Your task to perform on an android device: Go to CNN.com Image 0: 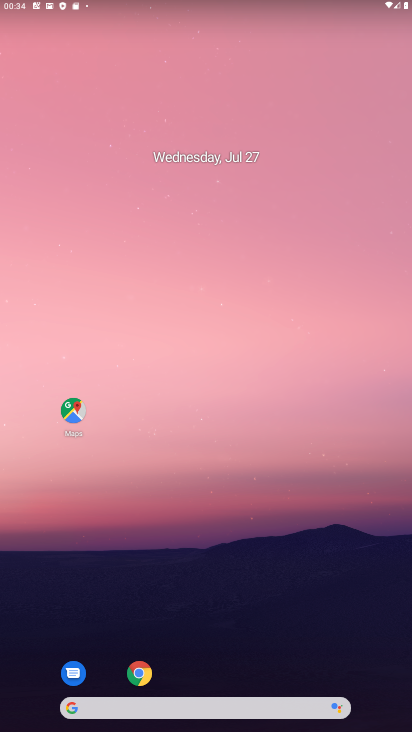
Step 0: drag from (180, 648) to (253, 159)
Your task to perform on an android device: Go to CNN.com Image 1: 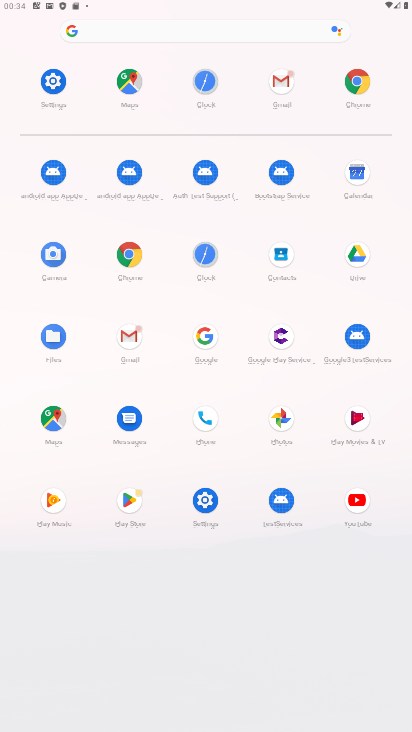
Step 1: click (354, 78)
Your task to perform on an android device: Go to CNN.com Image 2: 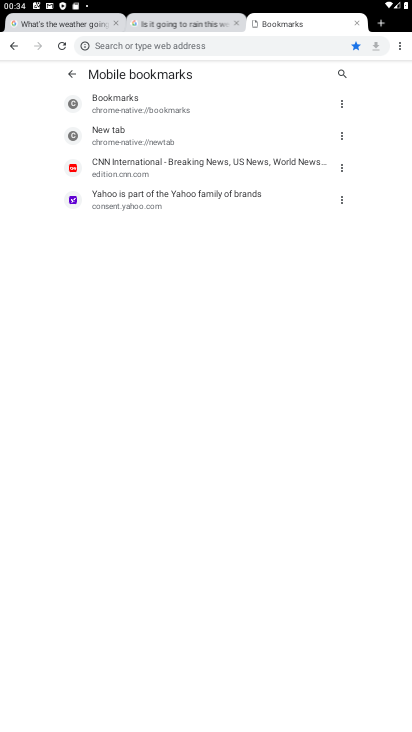
Step 2: click (386, 23)
Your task to perform on an android device: Go to CNN.com Image 3: 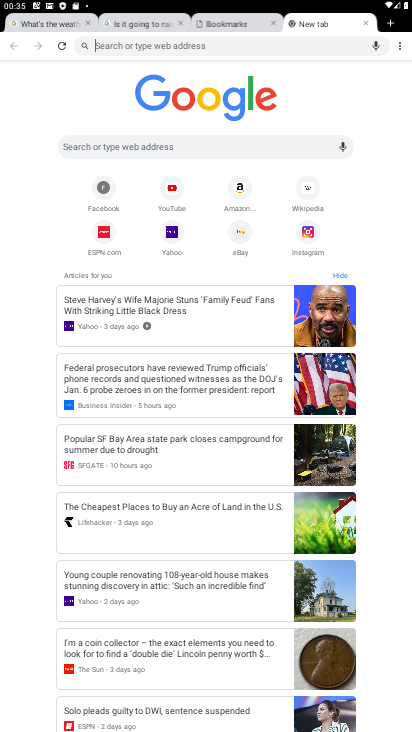
Step 3: click (210, 138)
Your task to perform on an android device: Go to CNN.com Image 4: 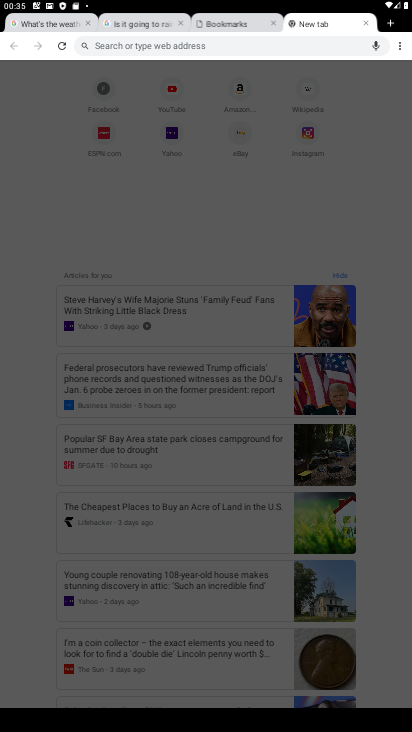
Step 4: type "CNN.com "
Your task to perform on an android device: Go to CNN.com Image 5: 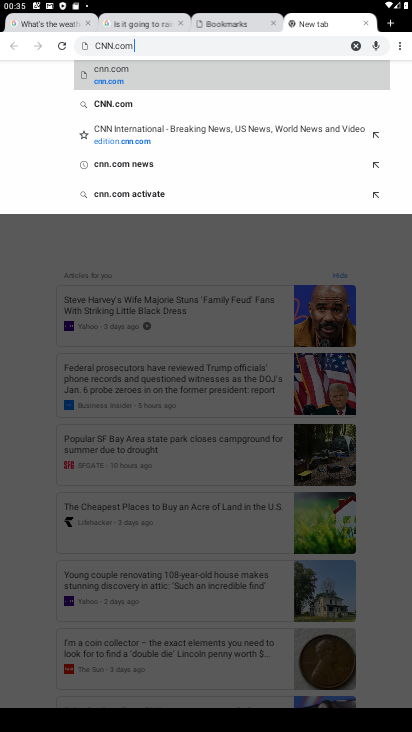
Step 5: click (161, 78)
Your task to perform on an android device: Go to CNN.com Image 6: 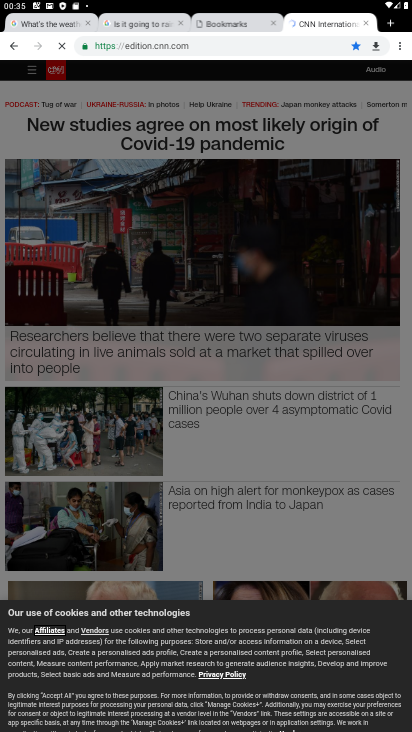
Step 6: task complete